Your task to perform on an android device: Open Android settings Image 0: 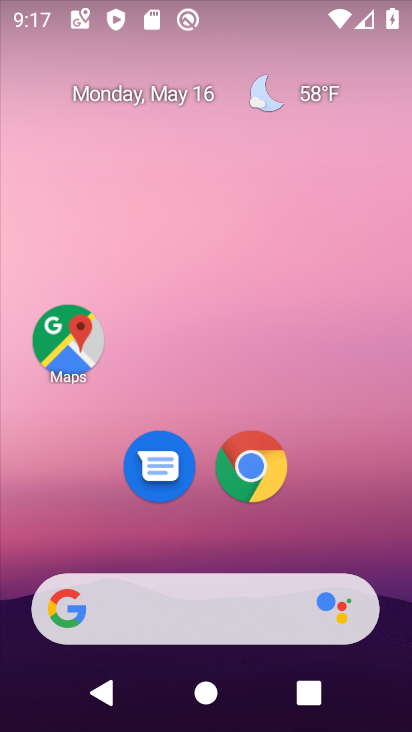
Step 0: drag from (302, 516) to (331, 161)
Your task to perform on an android device: Open Android settings Image 1: 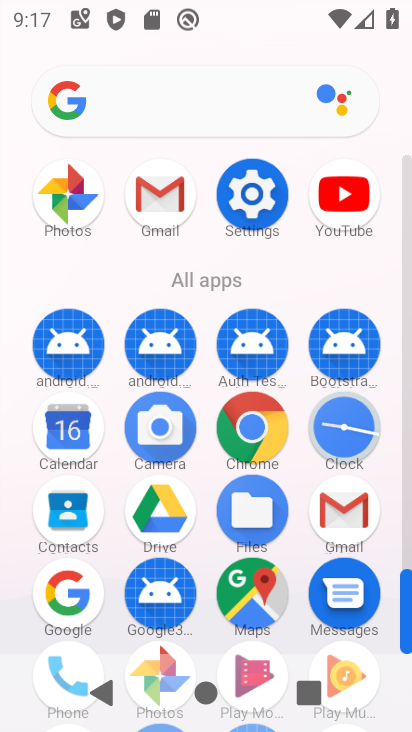
Step 1: click (259, 183)
Your task to perform on an android device: Open Android settings Image 2: 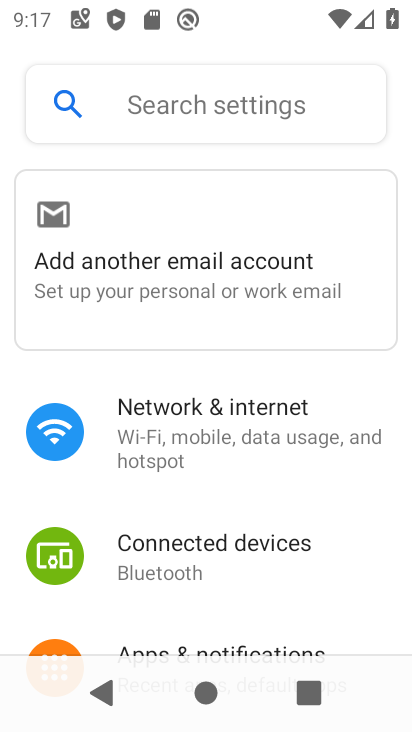
Step 2: drag from (338, 597) to (372, 219)
Your task to perform on an android device: Open Android settings Image 3: 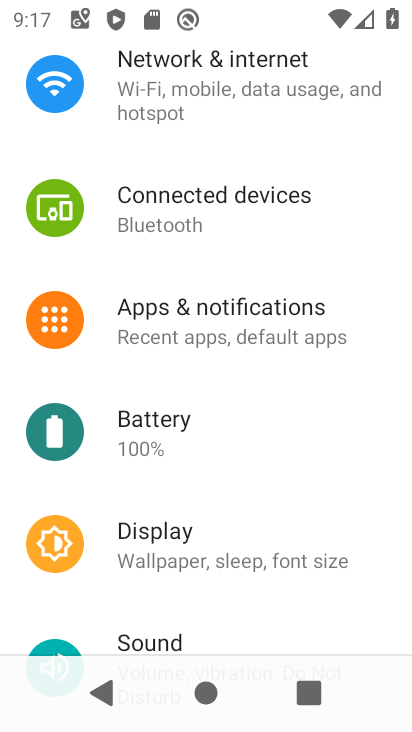
Step 3: drag from (343, 635) to (381, 274)
Your task to perform on an android device: Open Android settings Image 4: 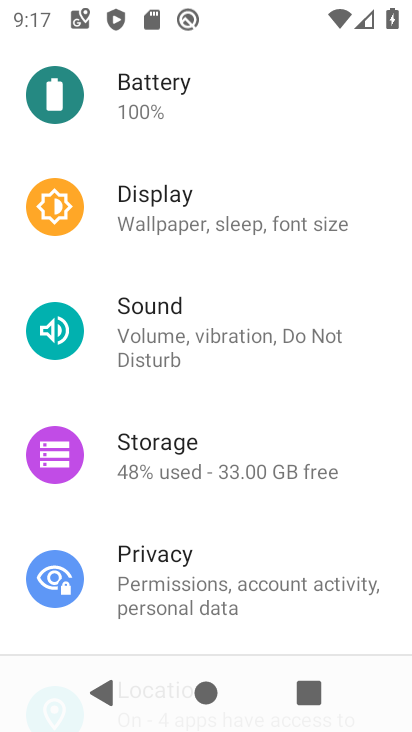
Step 4: drag from (343, 614) to (360, 207)
Your task to perform on an android device: Open Android settings Image 5: 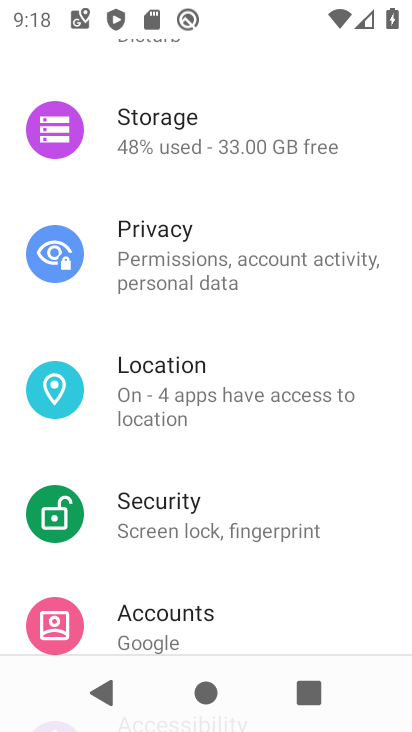
Step 5: drag from (273, 585) to (347, 119)
Your task to perform on an android device: Open Android settings Image 6: 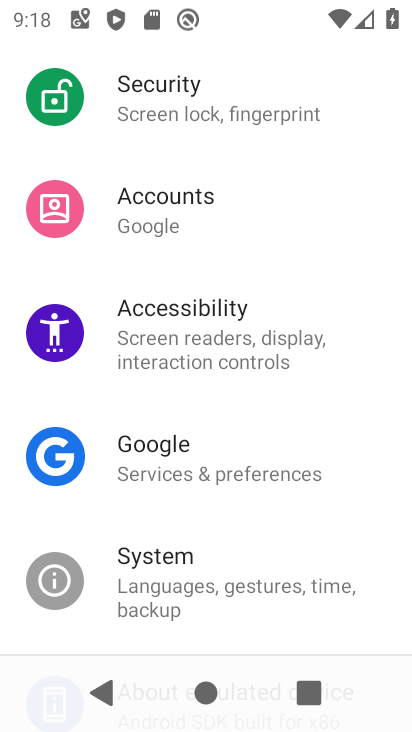
Step 6: drag from (304, 596) to (335, 127)
Your task to perform on an android device: Open Android settings Image 7: 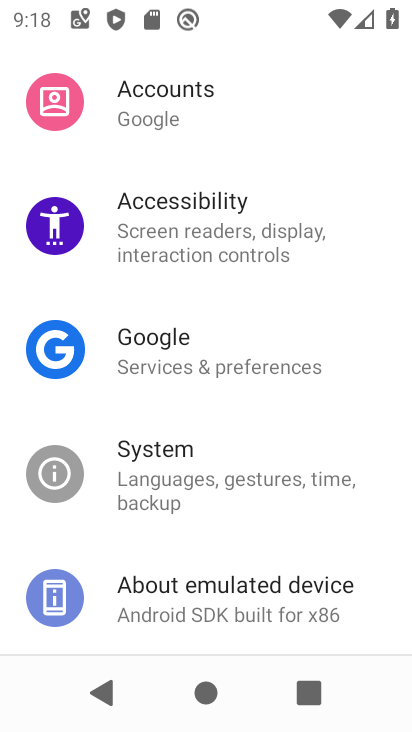
Step 7: click (250, 598)
Your task to perform on an android device: Open Android settings Image 8: 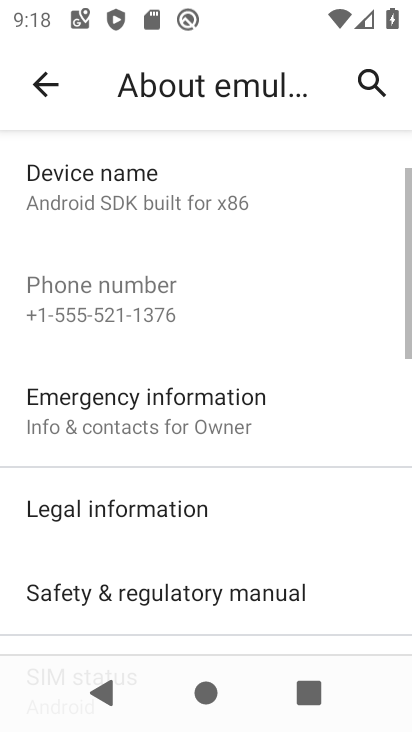
Step 8: drag from (310, 561) to (358, 236)
Your task to perform on an android device: Open Android settings Image 9: 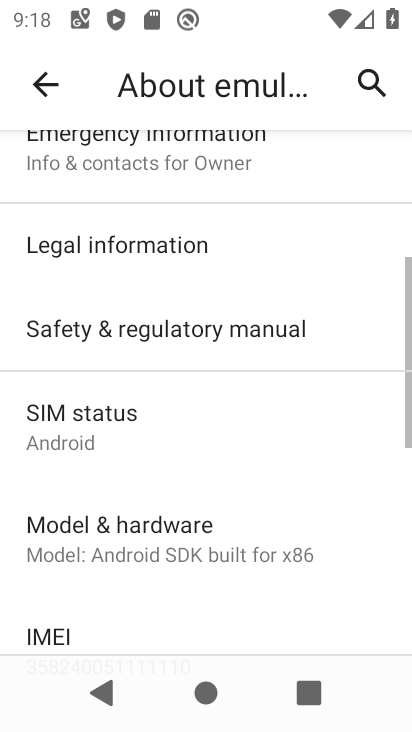
Step 9: drag from (290, 552) to (344, 275)
Your task to perform on an android device: Open Android settings Image 10: 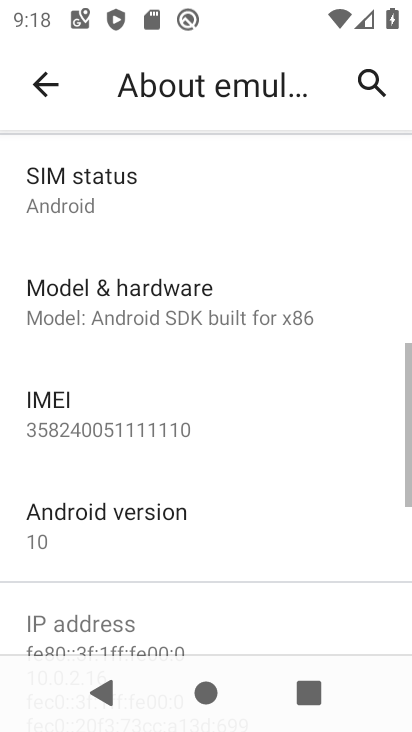
Step 10: click (93, 511)
Your task to perform on an android device: Open Android settings Image 11: 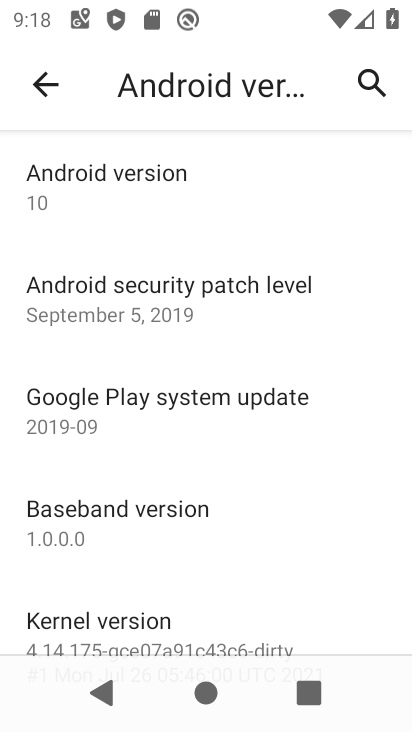
Step 11: task complete